Your task to perform on an android device: Open Android settings Image 0: 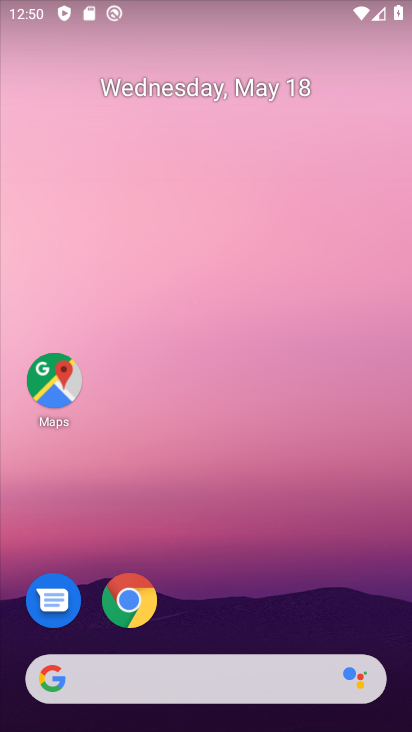
Step 0: drag from (246, 600) to (216, 176)
Your task to perform on an android device: Open Android settings Image 1: 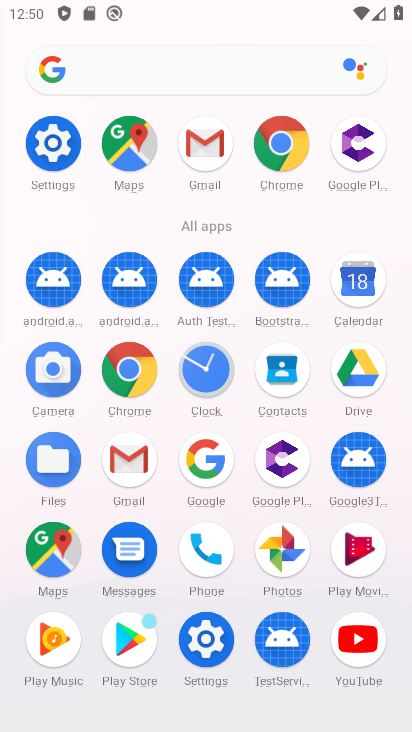
Step 1: click (50, 140)
Your task to perform on an android device: Open Android settings Image 2: 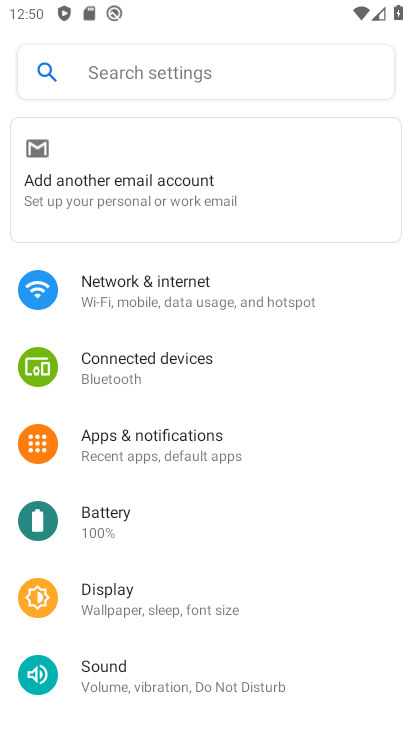
Step 2: task complete